Your task to perform on an android device: check out phone information Image 0: 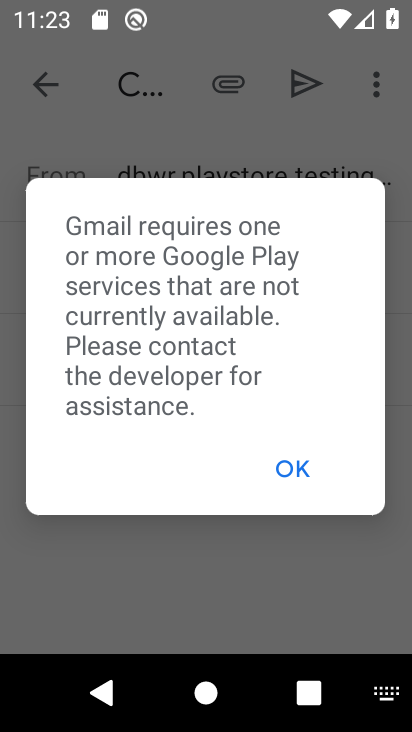
Step 0: press home button
Your task to perform on an android device: check out phone information Image 1: 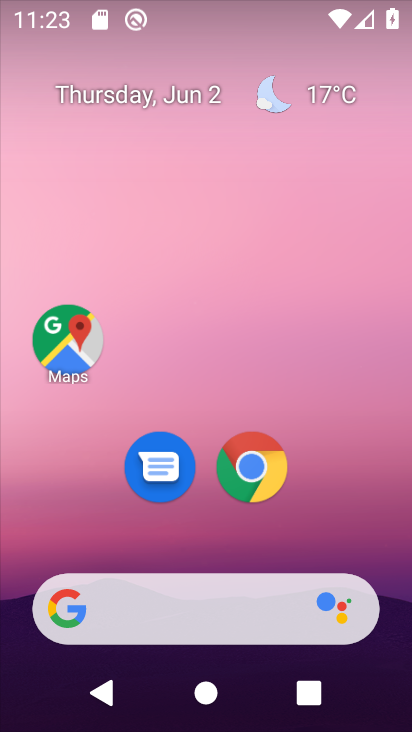
Step 1: drag from (169, 629) to (171, 285)
Your task to perform on an android device: check out phone information Image 2: 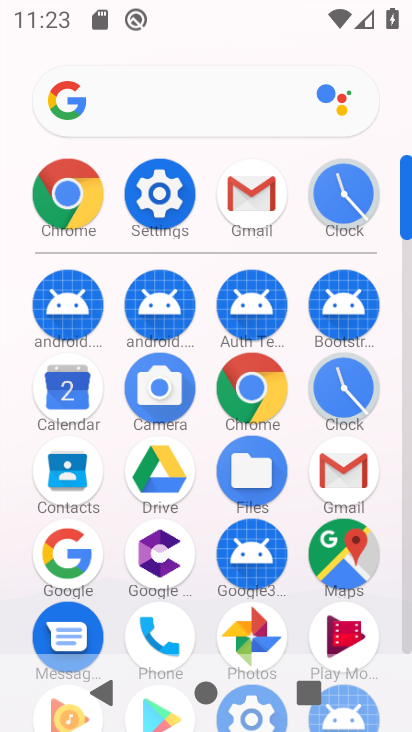
Step 2: click (143, 191)
Your task to perform on an android device: check out phone information Image 3: 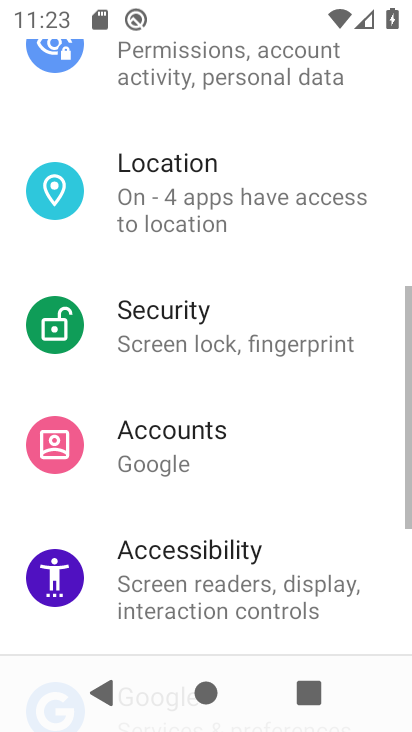
Step 3: drag from (158, 581) to (156, 110)
Your task to perform on an android device: check out phone information Image 4: 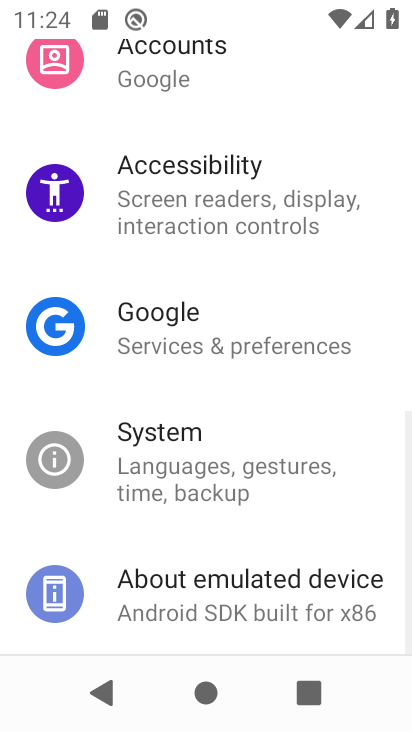
Step 4: click (177, 214)
Your task to perform on an android device: check out phone information Image 5: 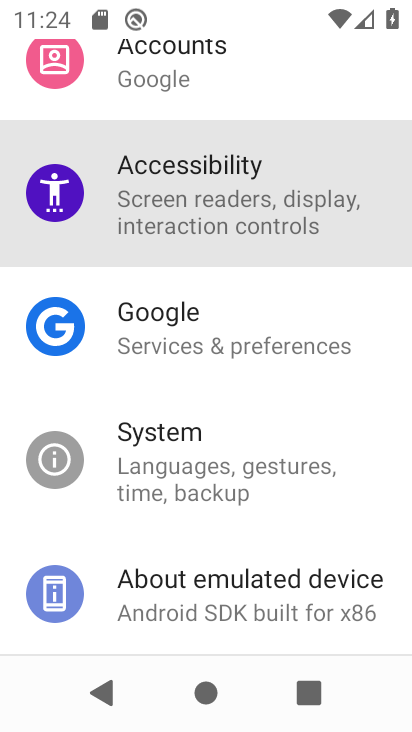
Step 5: click (151, 586)
Your task to perform on an android device: check out phone information Image 6: 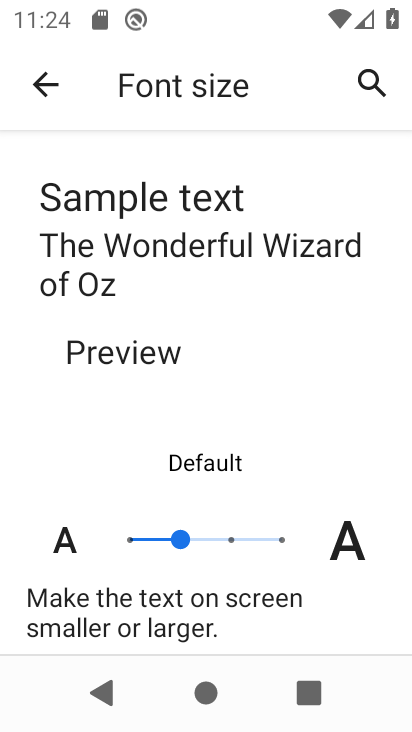
Step 6: click (18, 97)
Your task to perform on an android device: check out phone information Image 7: 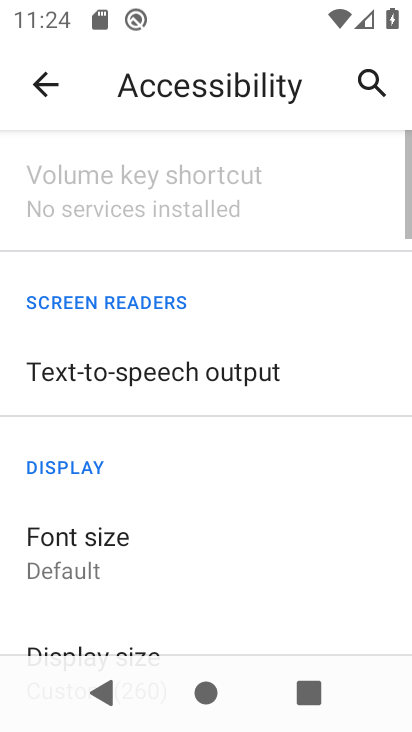
Step 7: click (37, 81)
Your task to perform on an android device: check out phone information Image 8: 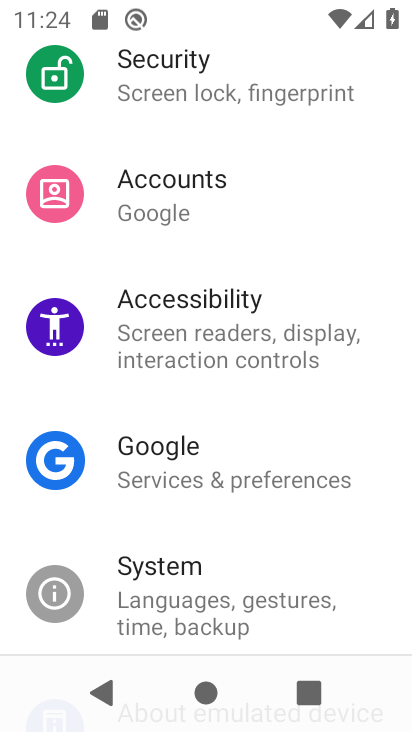
Step 8: drag from (128, 564) to (173, 235)
Your task to perform on an android device: check out phone information Image 9: 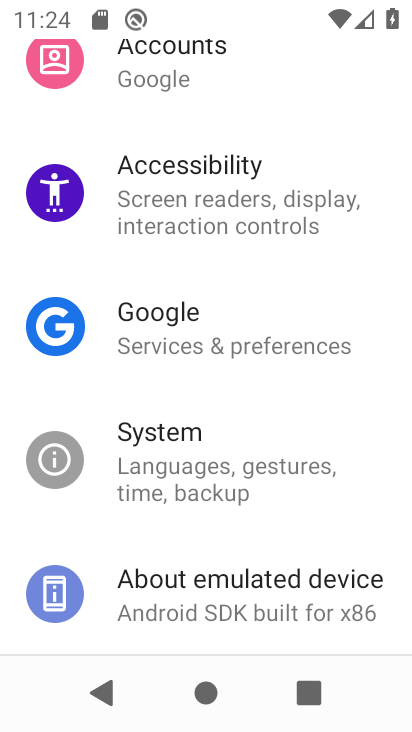
Step 9: click (133, 593)
Your task to perform on an android device: check out phone information Image 10: 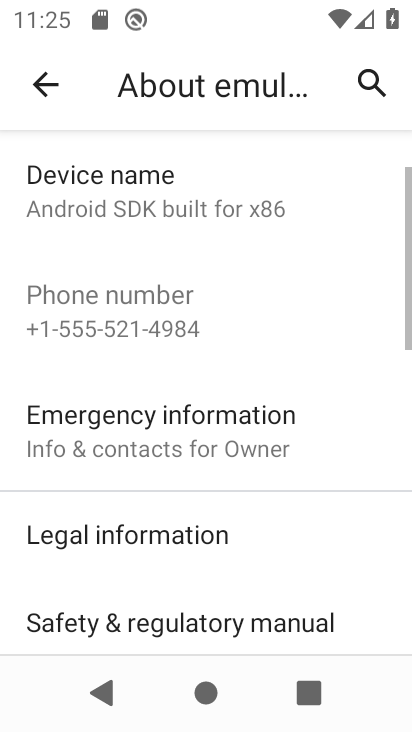
Step 10: task complete